Your task to perform on an android device: Open Chrome and go to settings Image 0: 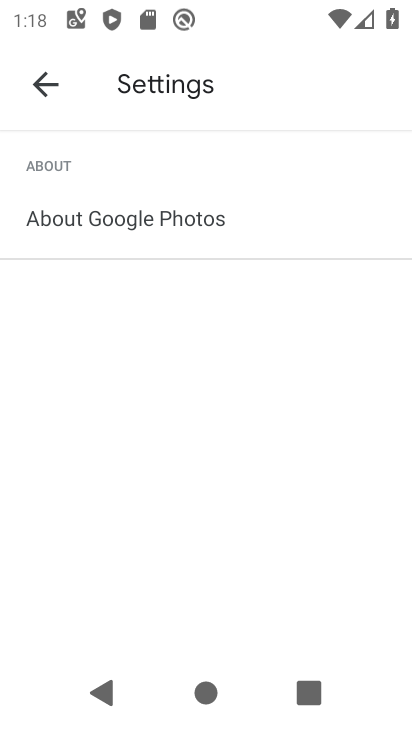
Step 0: press back button
Your task to perform on an android device: Open Chrome and go to settings Image 1: 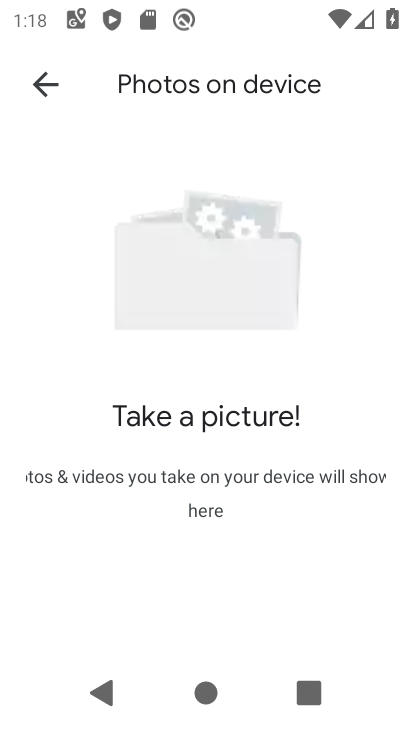
Step 1: press back button
Your task to perform on an android device: Open Chrome and go to settings Image 2: 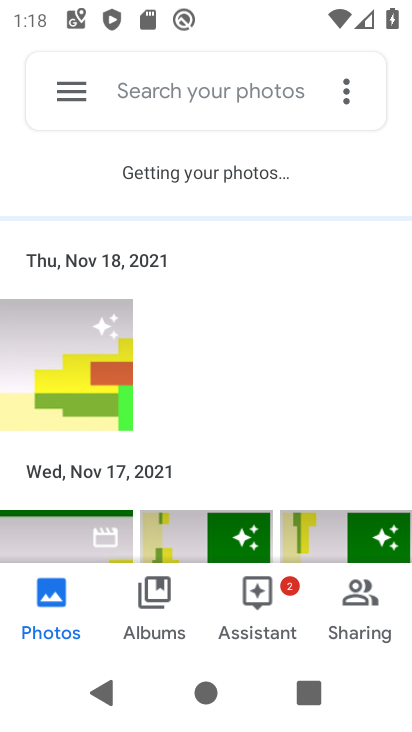
Step 2: press back button
Your task to perform on an android device: Open Chrome and go to settings Image 3: 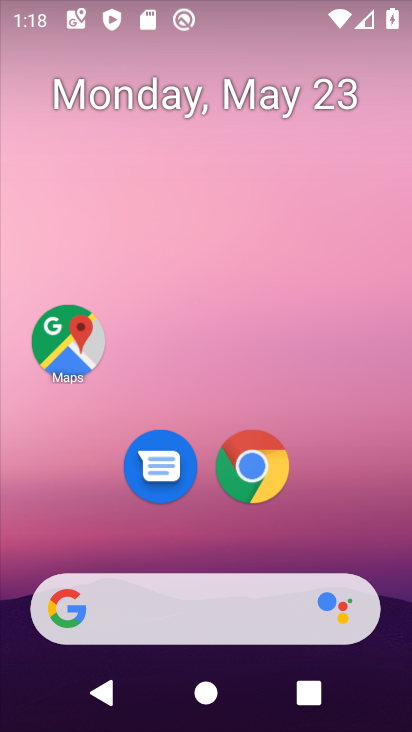
Step 3: click (252, 468)
Your task to perform on an android device: Open Chrome and go to settings Image 4: 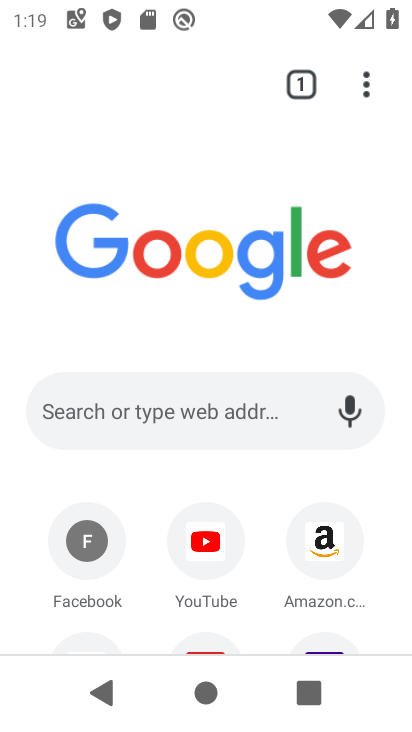
Step 4: click (368, 82)
Your task to perform on an android device: Open Chrome and go to settings Image 5: 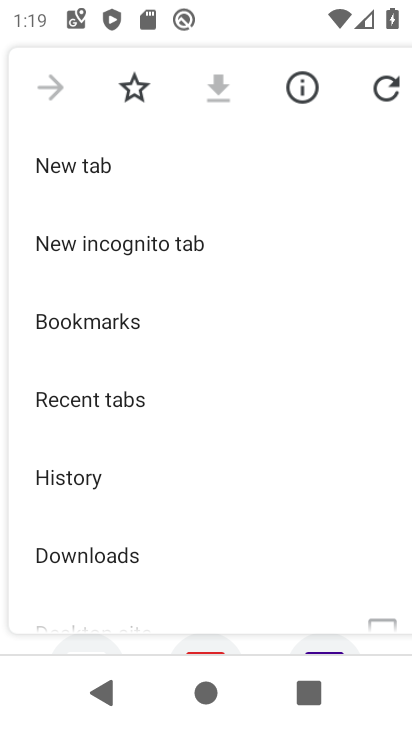
Step 5: drag from (130, 374) to (166, 295)
Your task to perform on an android device: Open Chrome and go to settings Image 6: 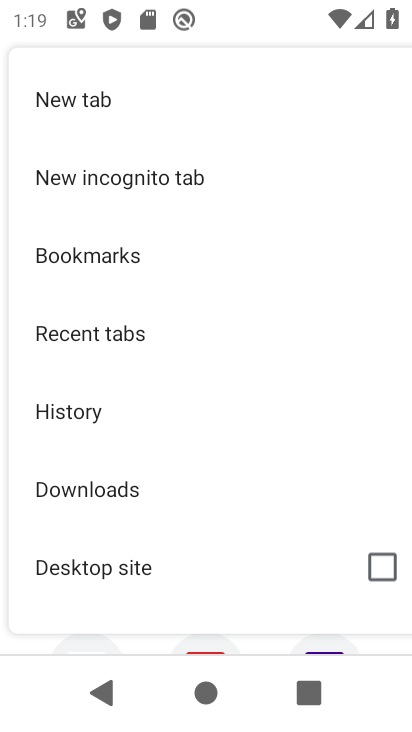
Step 6: drag from (95, 443) to (161, 362)
Your task to perform on an android device: Open Chrome and go to settings Image 7: 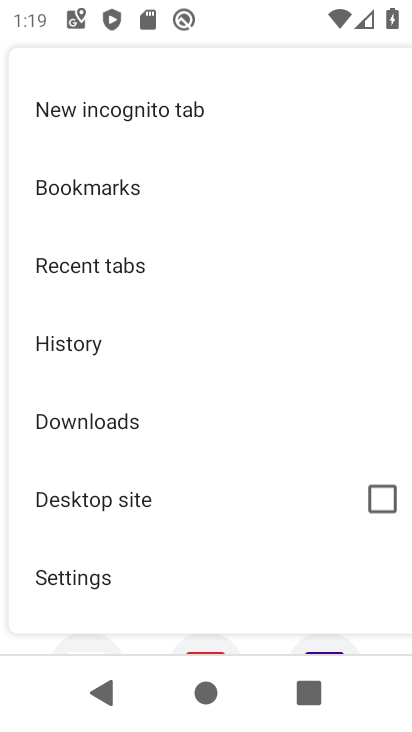
Step 7: drag from (106, 521) to (183, 415)
Your task to perform on an android device: Open Chrome and go to settings Image 8: 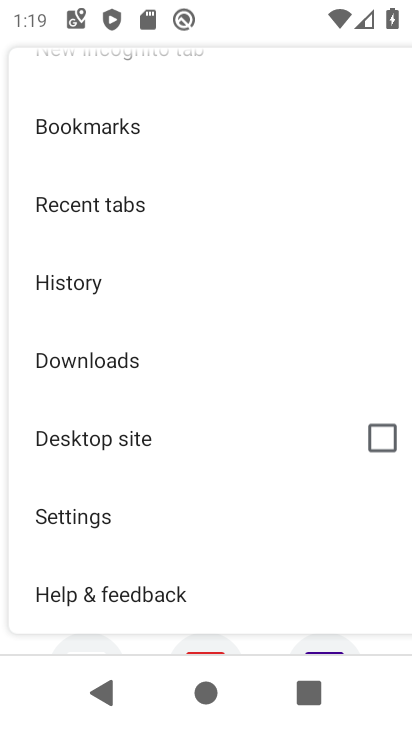
Step 8: click (95, 512)
Your task to perform on an android device: Open Chrome and go to settings Image 9: 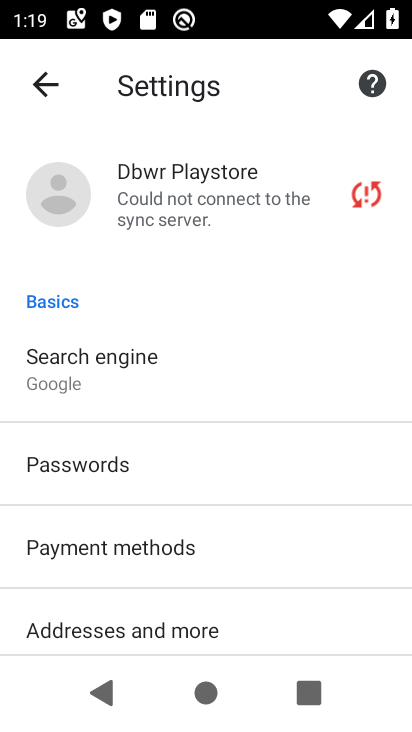
Step 9: task complete